Your task to perform on an android device: turn off priority inbox in the gmail app Image 0: 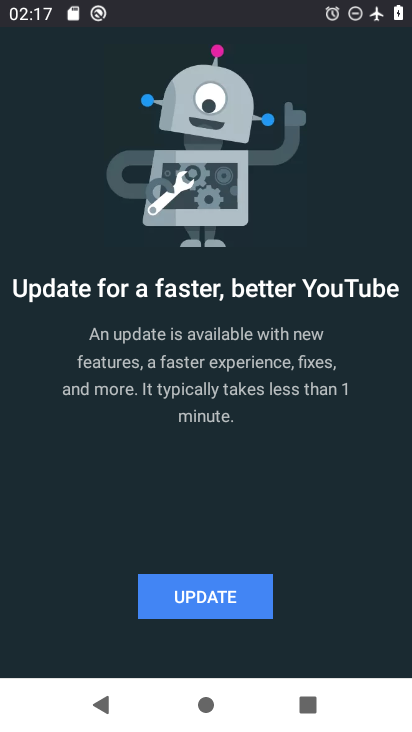
Step 0: press back button
Your task to perform on an android device: turn off priority inbox in the gmail app Image 1: 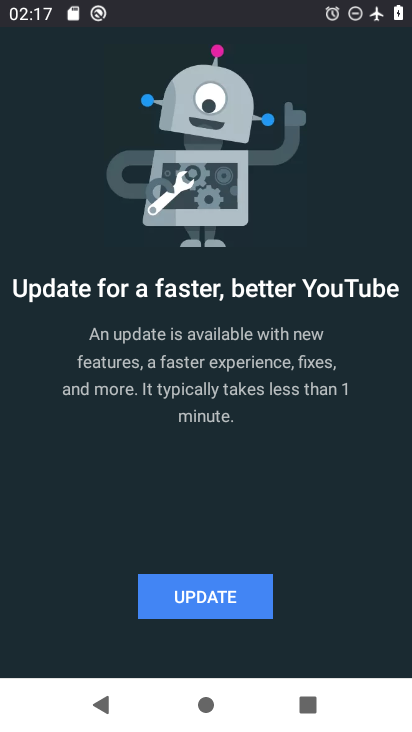
Step 1: press back button
Your task to perform on an android device: turn off priority inbox in the gmail app Image 2: 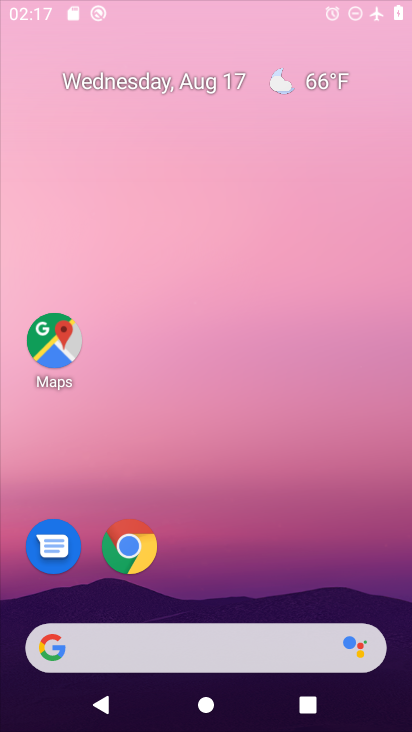
Step 2: press back button
Your task to perform on an android device: turn off priority inbox in the gmail app Image 3: 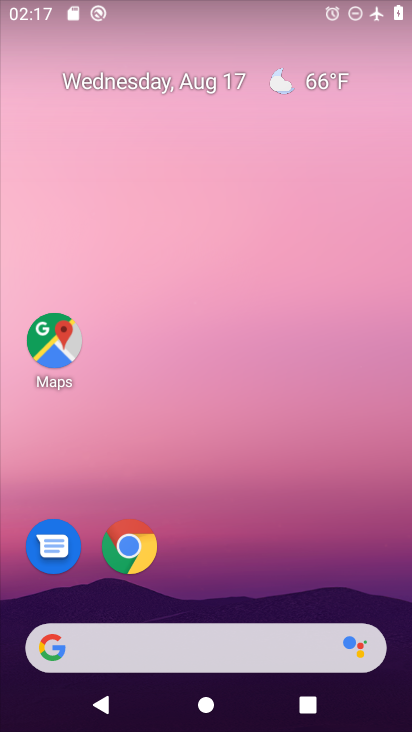
Step 3: drag from (222, 571) to (105, 156)
Your task to perform on an android device: turn off priority inbox in the gmail app Image 4: 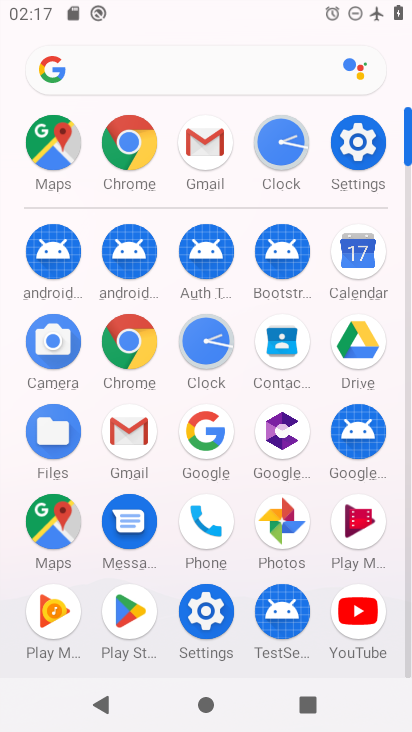
Step 4: click (194, 145)
Your task to perform on an android device: turn off priority inbox in the gmail app Image 5: 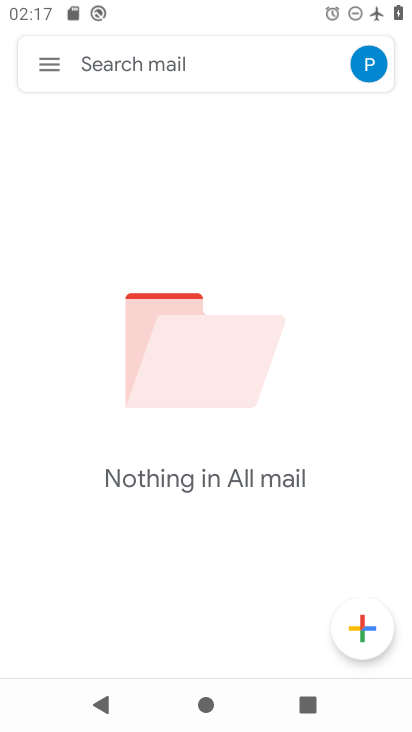
Step 5: click (47, 66)
Your task to perform on an android device: turn off priority inbox in the gmail app Image 6: 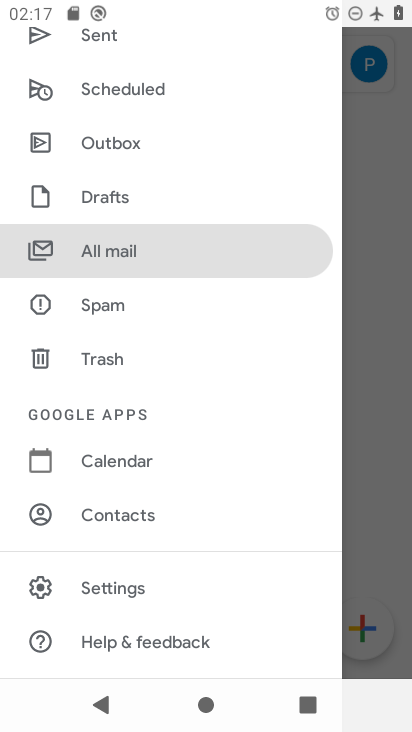
Step 6: click (115, 593)
Your task to perform on an android device: turn off priority inbox in the gmail app Image 7: 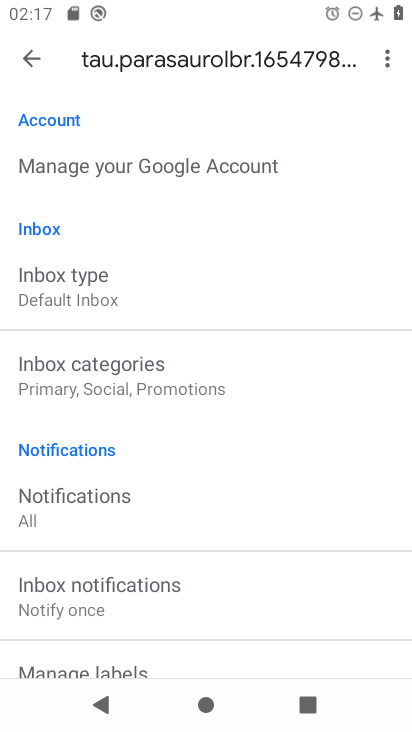
Step 7: click (40, 282)
Your task to perform on an android device: turn off priority inbox in the gmail app Image 8: 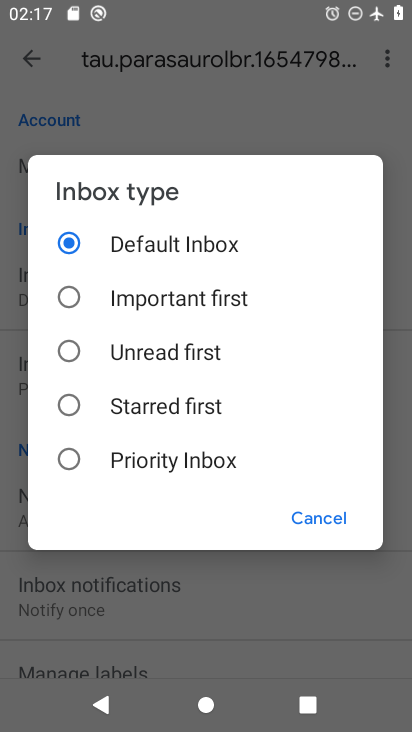
Step 8: task complete